Your task to perform on an android device: Empty the shopping cart on target.com. Search for dell alienware on target.com, select the first entry, add it to the cart, then select checkout. Image 0: 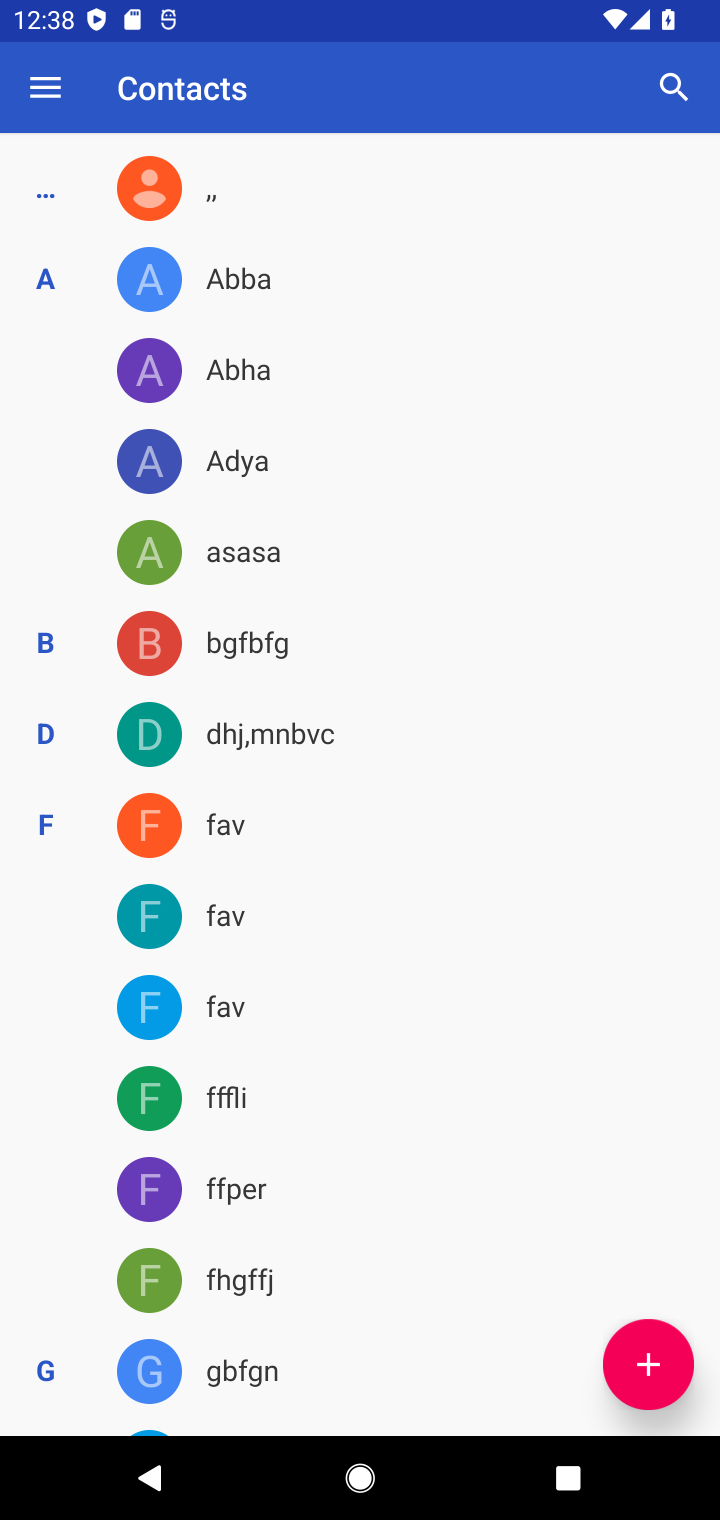
Step 0: press home button
Your task to perform on an android device: Empty the shopping cart on target.com. Search for dell alienware on target.com, select the first entry, add it to the cart, then select checkout. Image 1: 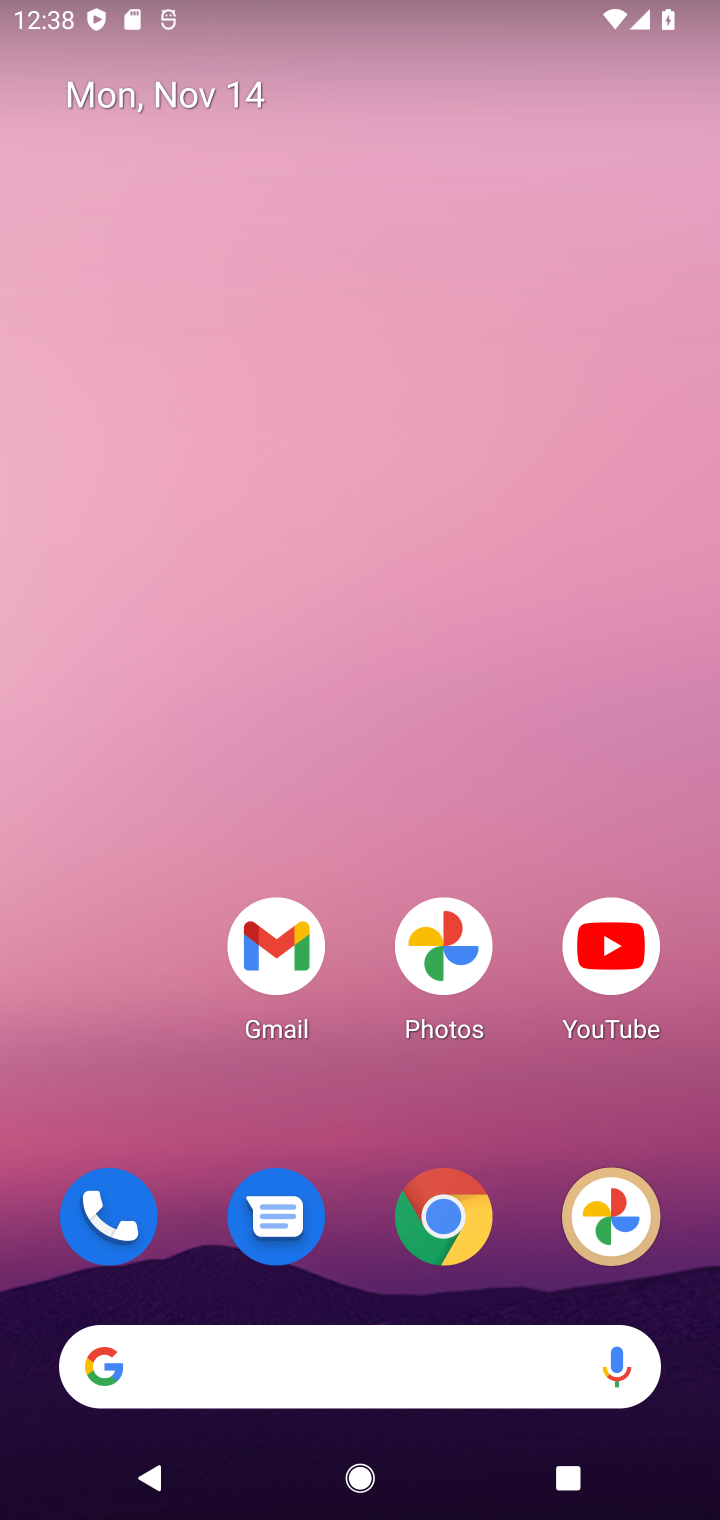
Step 1: click (438, 1215)
Your task to perform on an android device: Empty the shopping cart on target.com. Search for dell alienware on target.com, select the first entry, add it to the cart, then select checkout. Image 2: 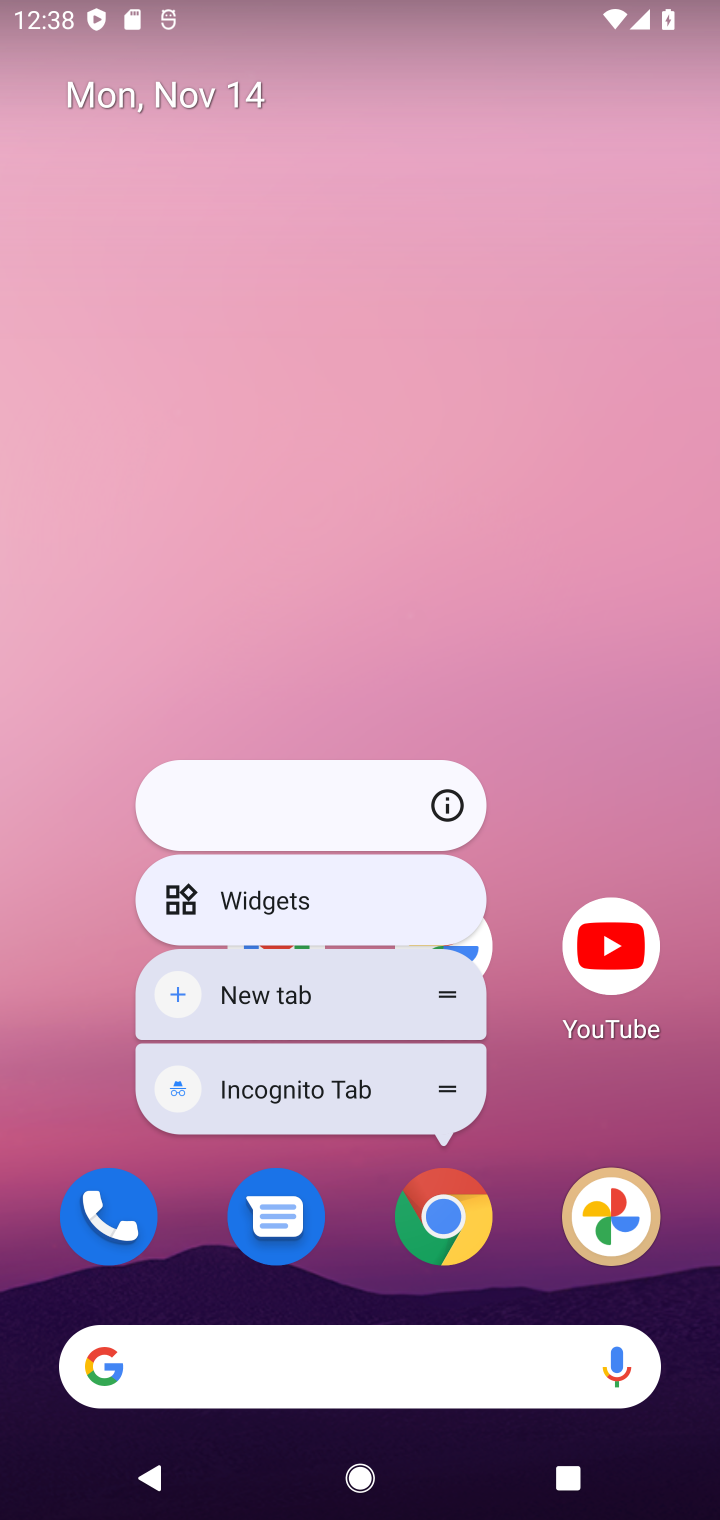
Step 2: click (439, 1196)
Your task to perform on an android device: Empty the shopping cart on target.com. Search for dell alienware on target.com, select the first entry, add it to the cart, then select checkout. Image 3: 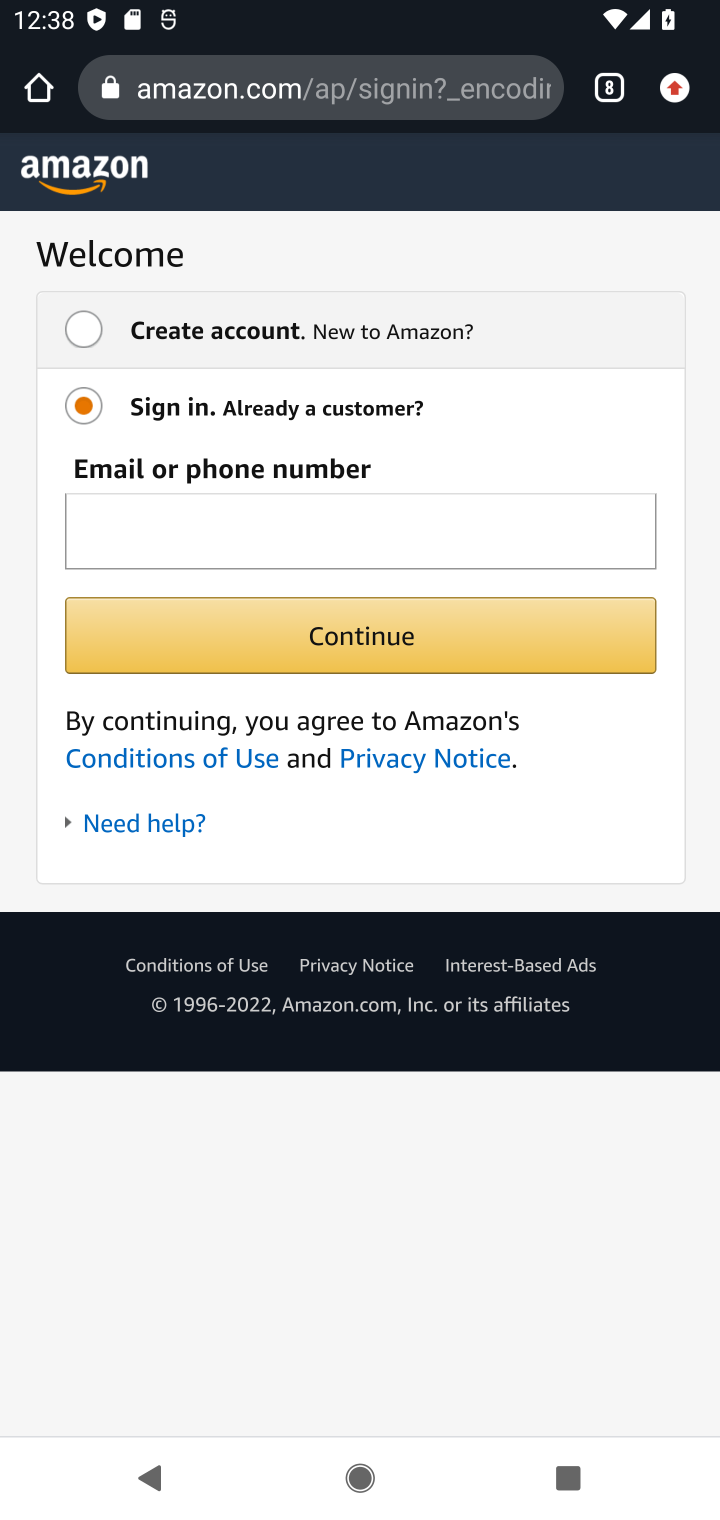
Step 3: click (608, 102)
Your task to perform on an android device: Empty the shopping cart on target.com. Search for dell alienware on target.com, select the first entry, add it to the cart, then select checkout. Image 4: 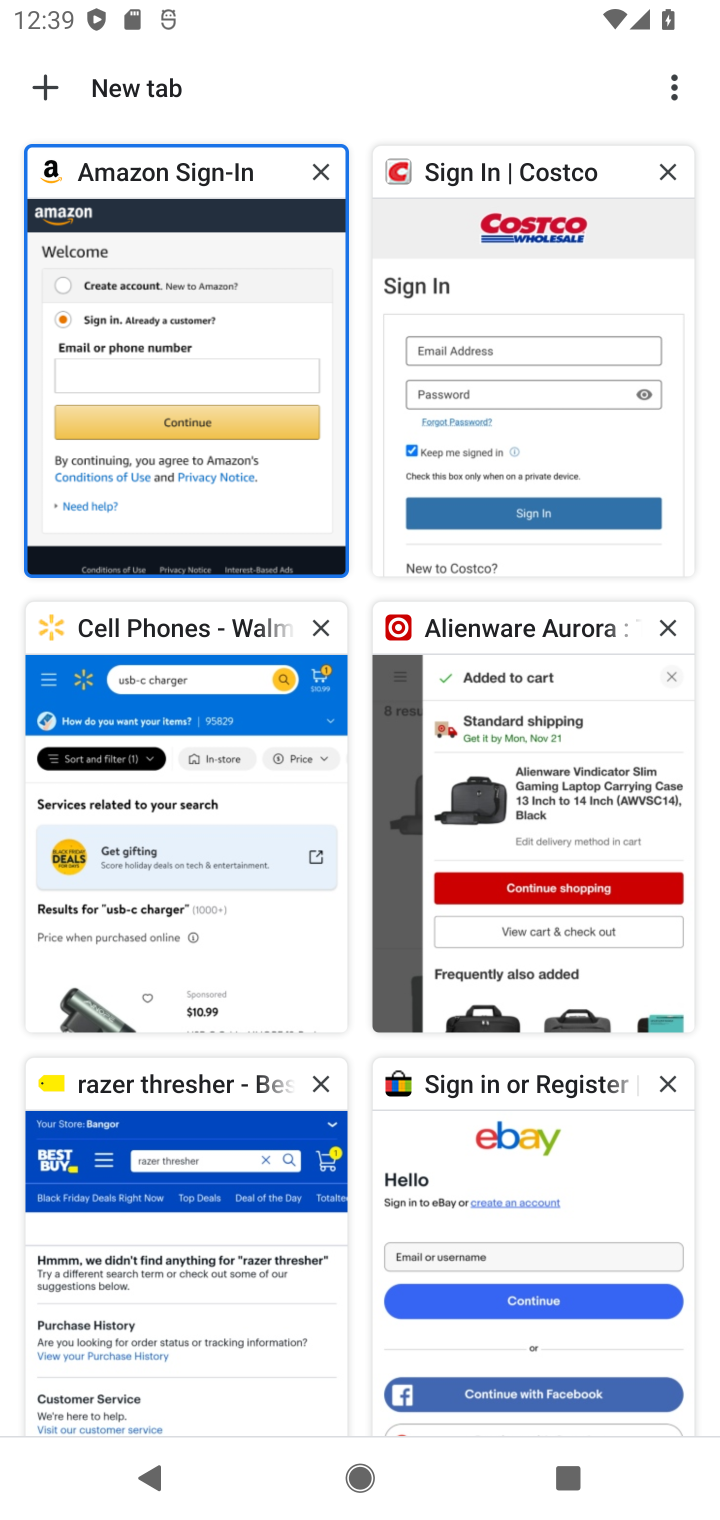
Step 4: click (504, 835)
Your task to perform on an android device: Empty the shopping cart on target.com. Search for dell alienware on target.com, select the first entry, add it to the cart, then select checkout. Image 5: 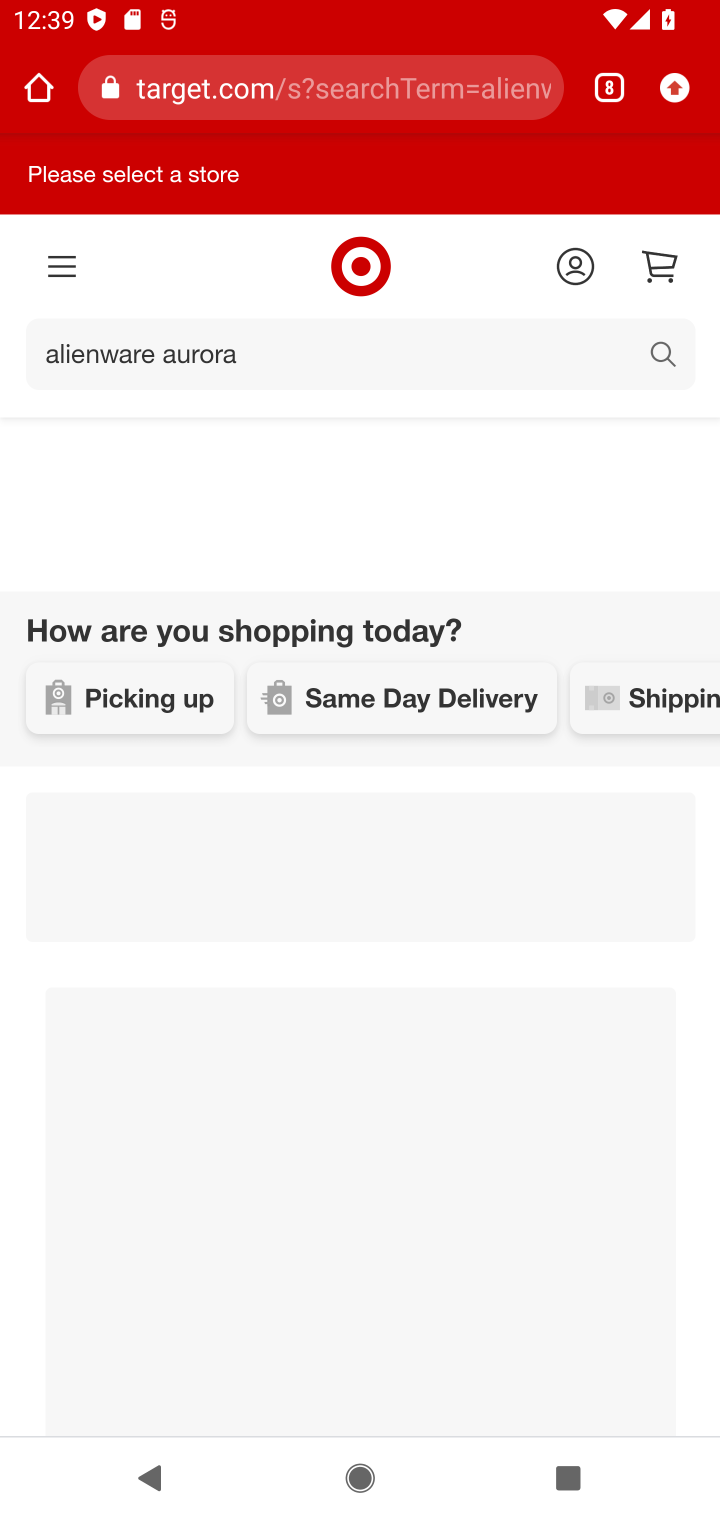
Step 5: click (198, 358)
Your task to perform on an android device: Empty the shopping cart on target.com. Search for dell alienware on target.com, select the first entry, add it to the cart, then select checkout. Image 6: 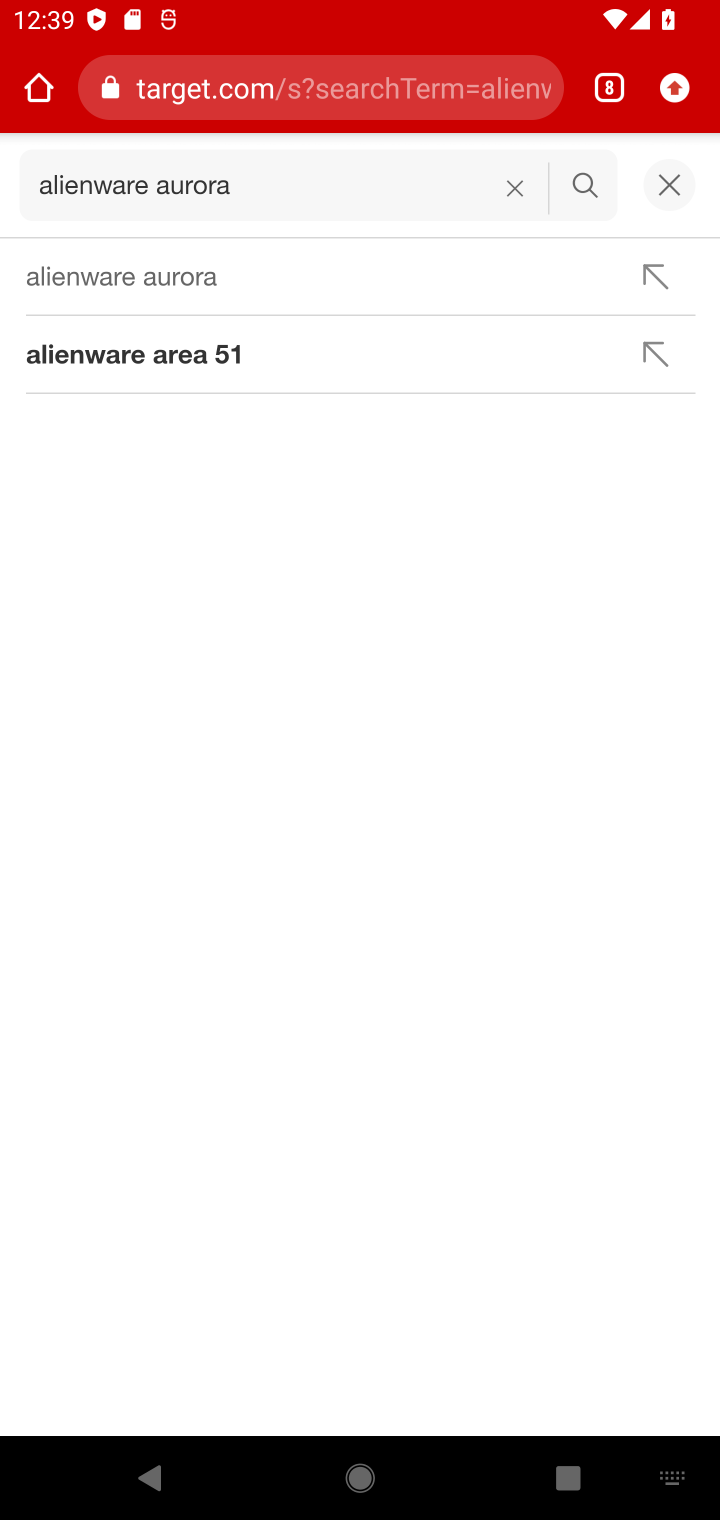
Step 6: click (513, 188)
Your task to perform on an android device: Empty the shopping cart on target.com. Search for dell alienware on target.com, select the first entry, add it to the cart, then select checkout. Image 7: 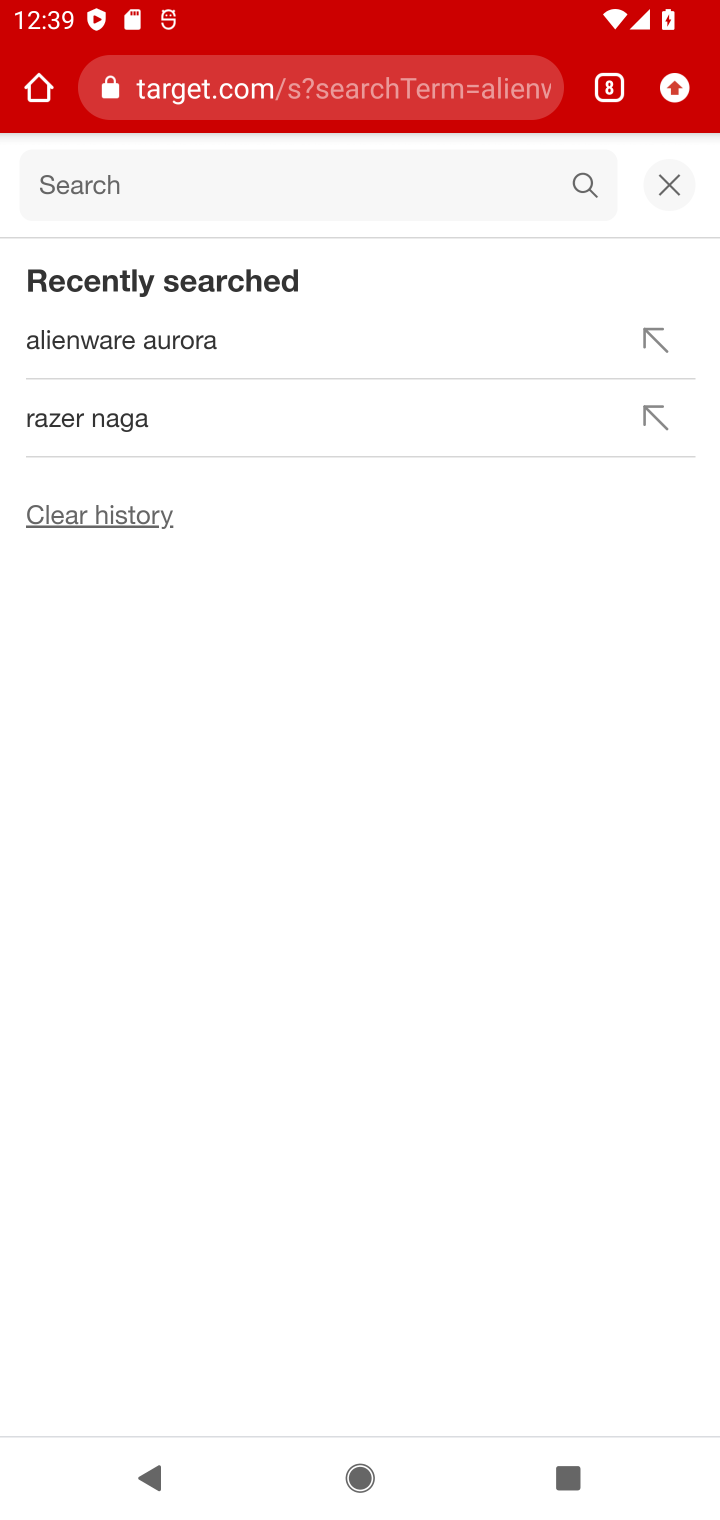
Step 7: type "dell alienware"
Your task to perform on an android device: Empty the shopping cart on target.com. Search for dell alienware on target.com, select the first entry, add it to the cart, then select checkout. Image 8: 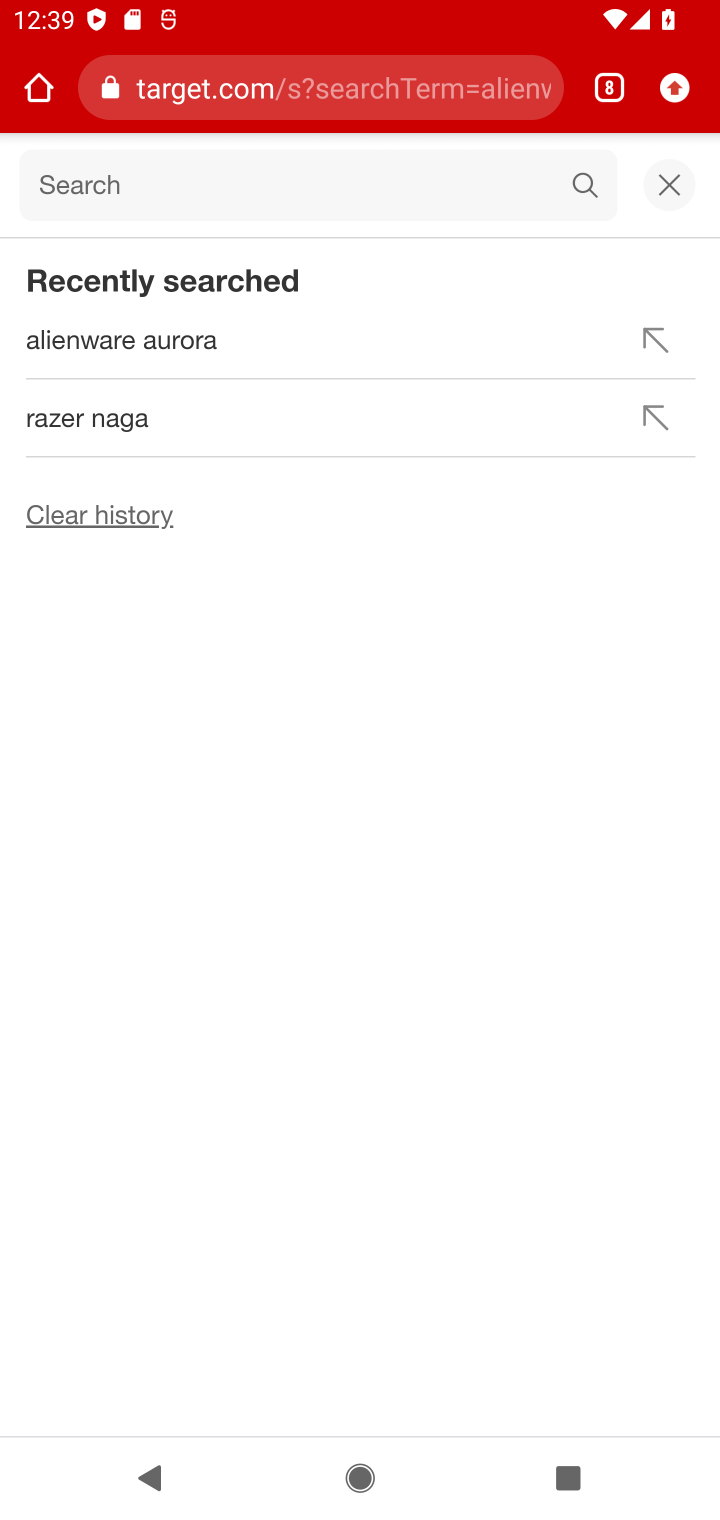
Step 8: click (58, 190)
Your task to perform on an android device: Empty the shopping cart on target.com. Search for dell alienware on target.com, select the first entry, add it to the cart, then select checkout. Image 9: 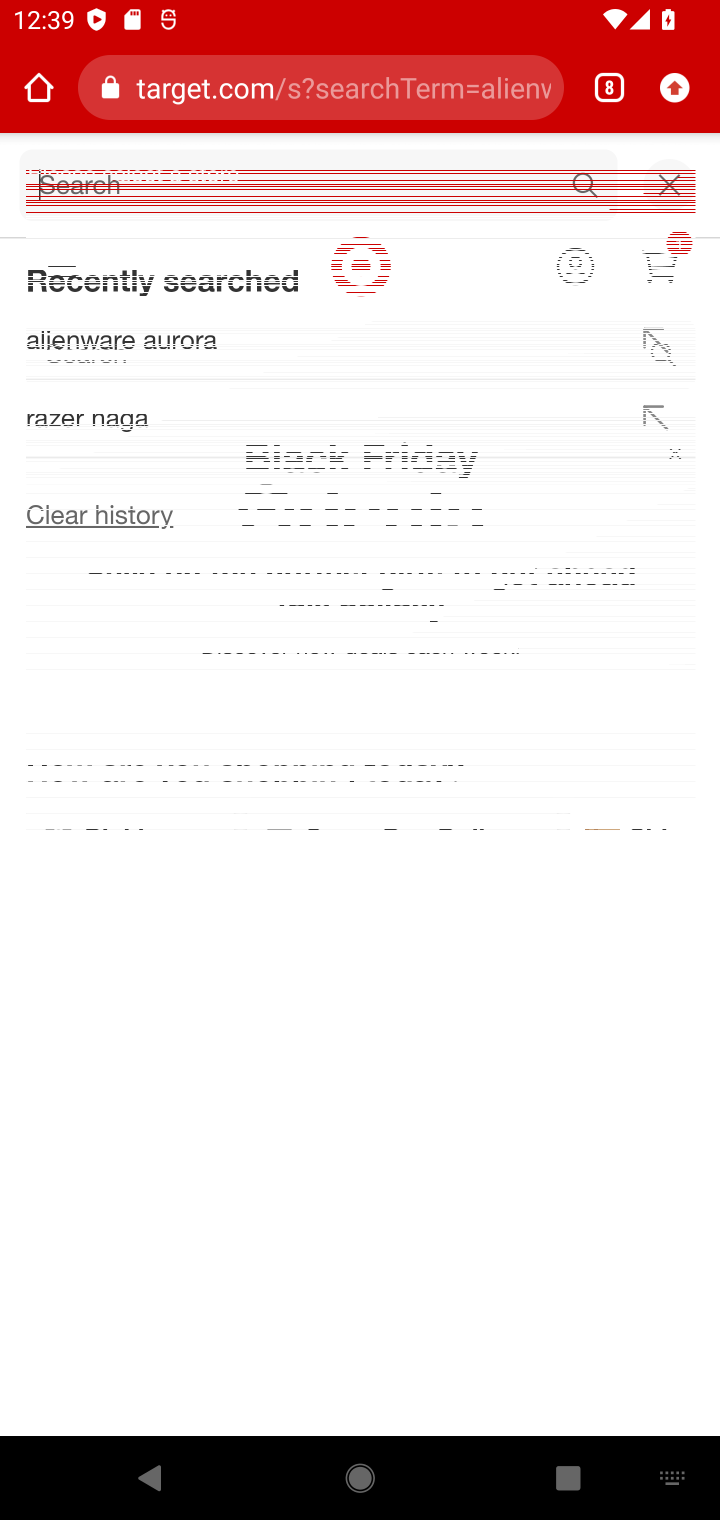
Step 9: type "dell alienware"
Your task to perform on an android device: Empty the shopping cart on target.com. Search for dell alienware on target.com, select the first entry, add it to the cart, then select checkout. Image 10: 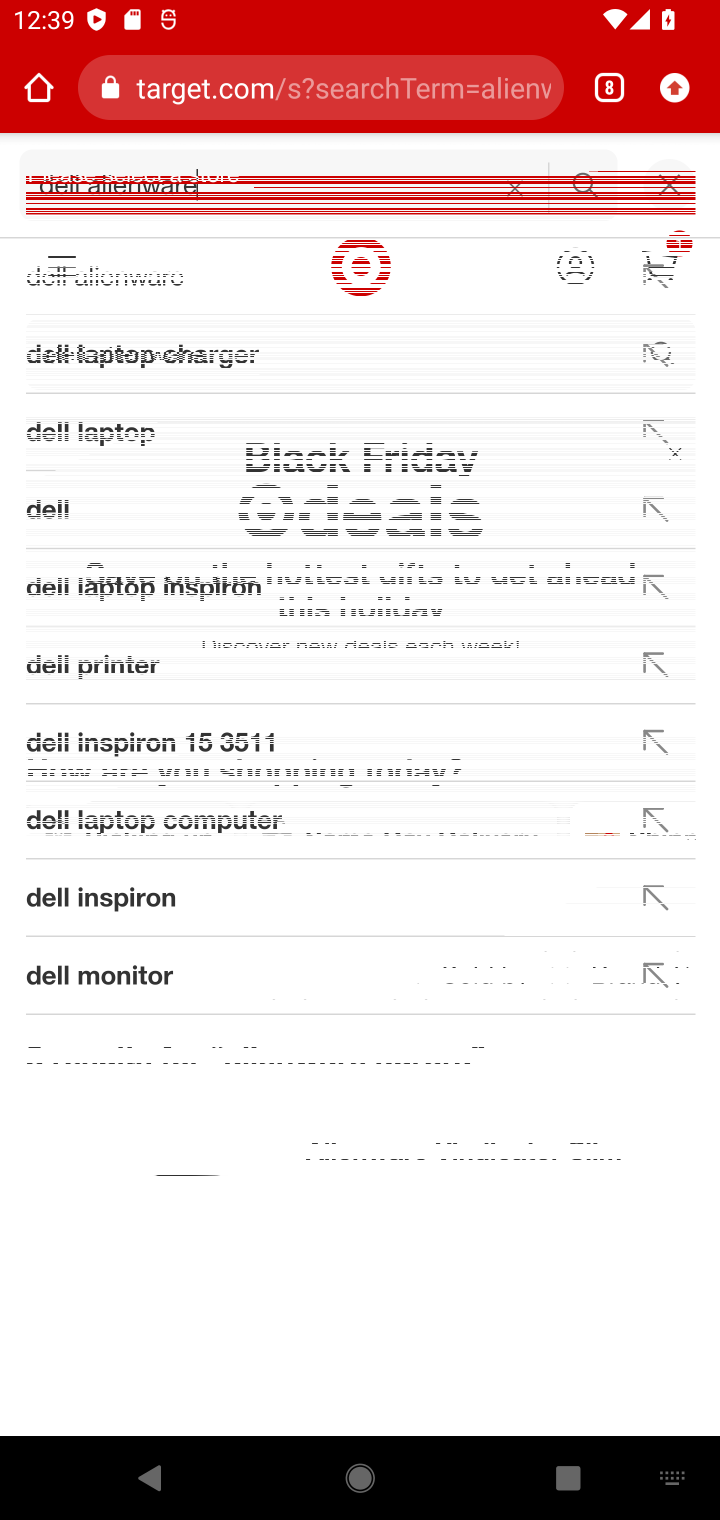
Step 10: click (161, 269)
Your task to perform on an android device: Empty the shopping cart on target.com. Search for dell alienware on target.com, select the first entry, add it to the cart, then select checkout. Image 11: 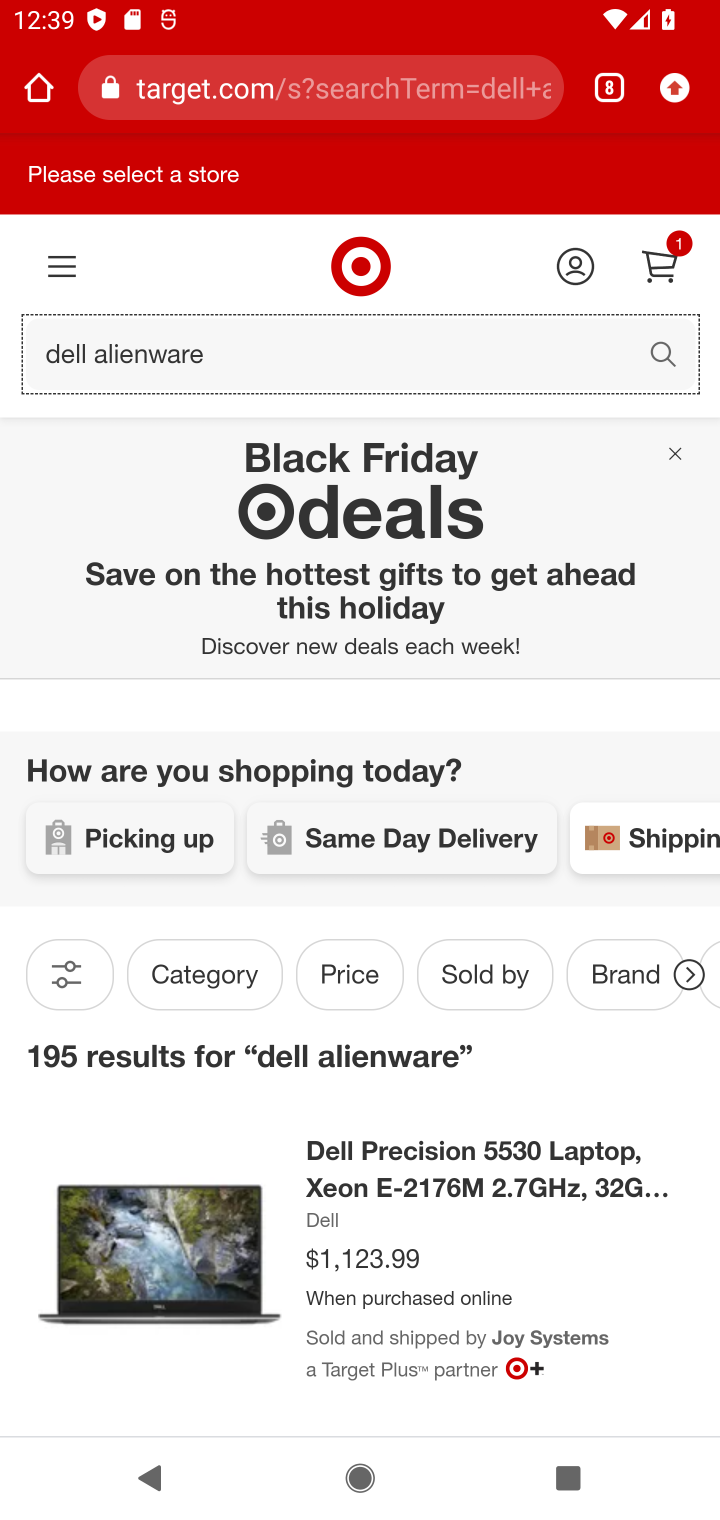
Step 11: click (673, 360)
Your task to perform on an android device: Empty the shopping cart on target.com. Search for dell alienware on target.com, select the first entry, add it to the cart, then select checkout. Image 12: 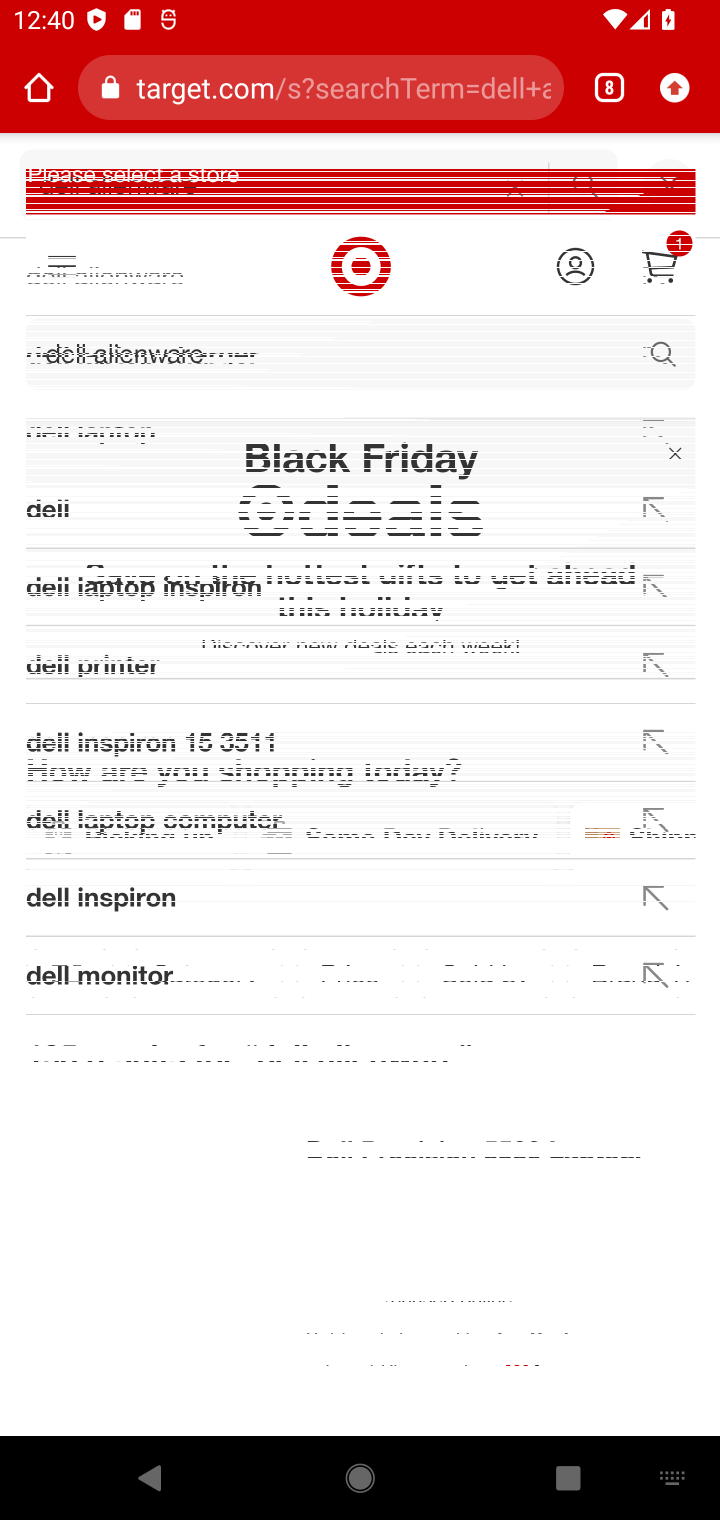
Step 12: click (68, 297)
Your task to perform on an android device: Empty the shopping cart on target.com. Search for dell alienware on target.com, select the first entry, add it to the cart, then select checkout. Image 13: 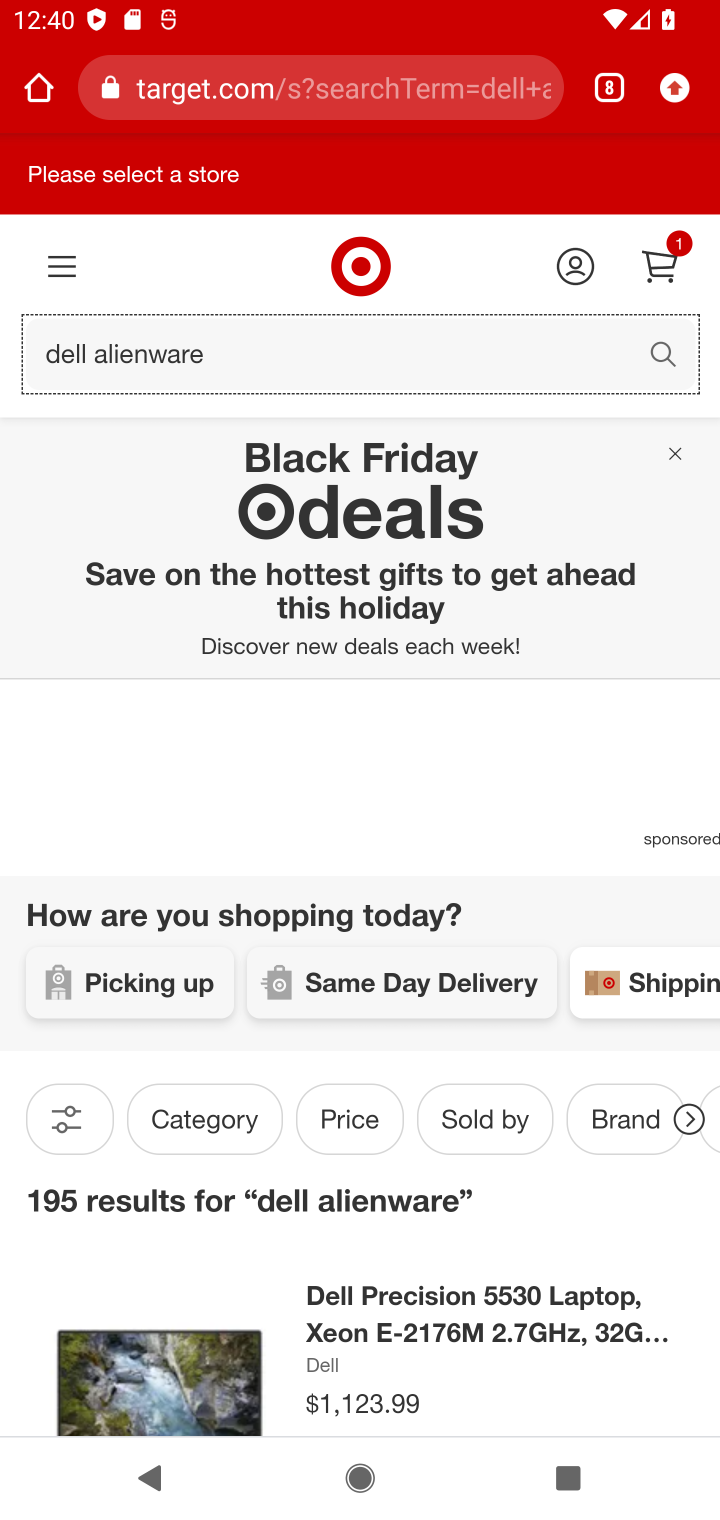
Step 13: task complete